Your task to perform on an android device: Go to wifi settings Image 0: 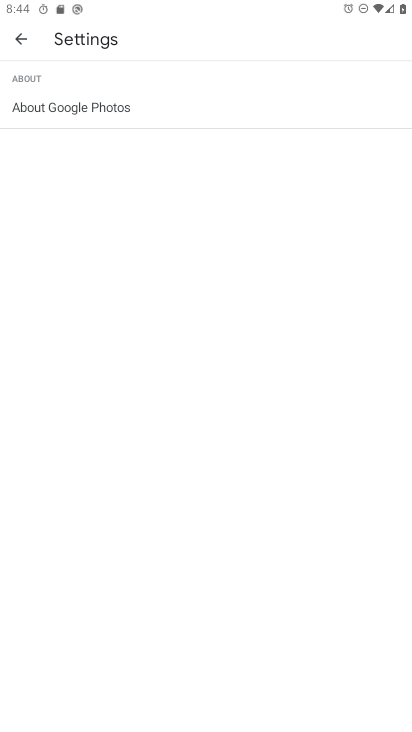
Step 0: press home button
Your task to perform on an android device: Go to wifi settings Image 1: 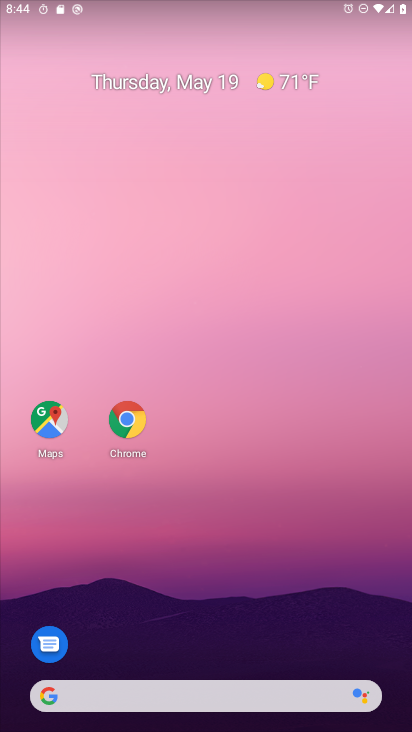
Step 1: drag from (197, 669) to (200, 344)
Your task to perform on an android device: Go to wifi settings Image 2: 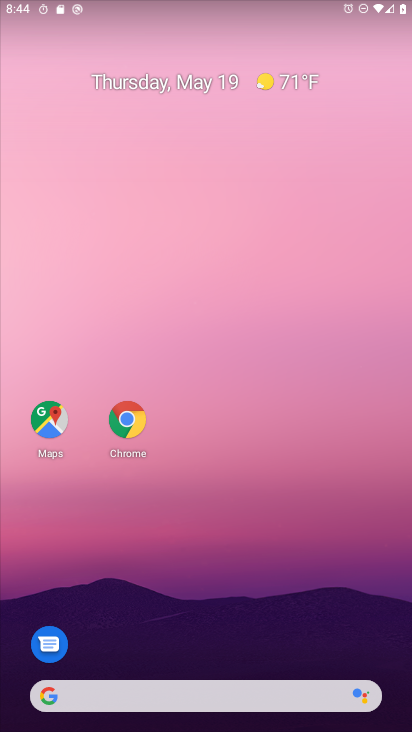
Step 2: drag from (206, 674) to (226, 137)
Your task to perform on an android device: Go to wifi settings Image 3: 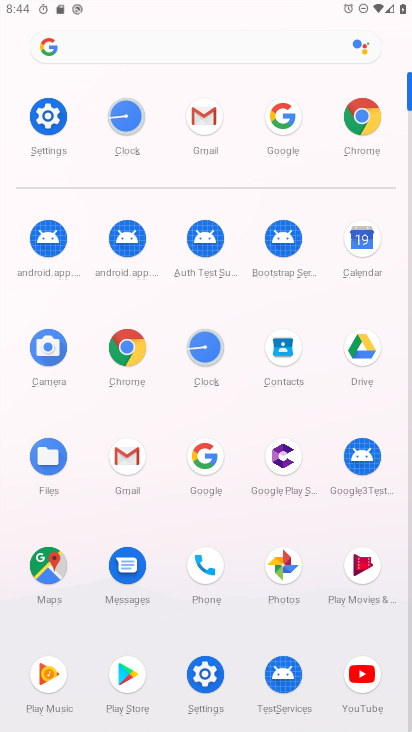
Step 3: click (46, 123)
Your task to perform on an android device: Go to wifi settings Image 4: 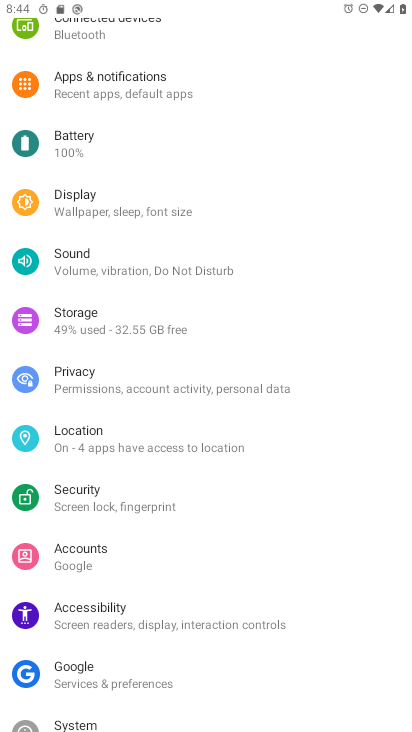
Step 4: drag from (96, 72) to (120, 499)
Your task to perform on an android device: Go to wifi settings Image 5: 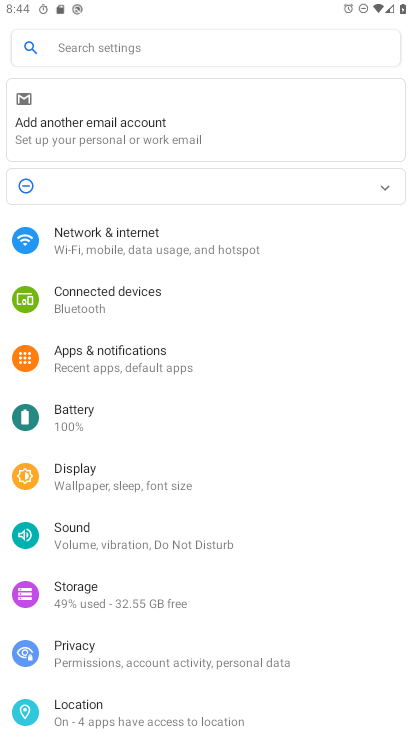
Step 5: click (112, 252)
Your task to perform on an android device: Go to wifi settings Image 6: 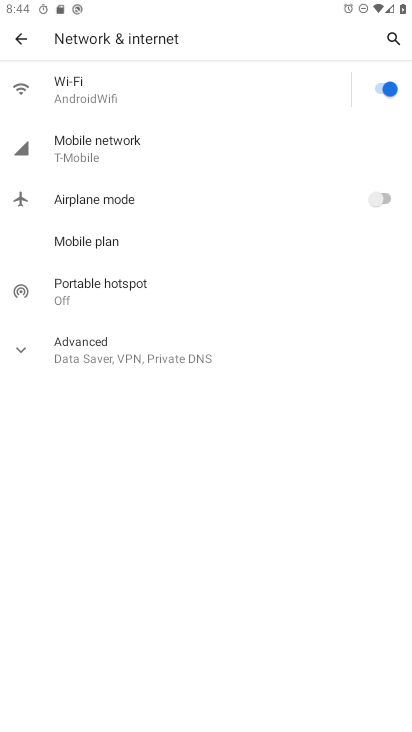
Step 6: click (114, 360)
Your task to perform on an android device: Go to wifi settings Image 7: 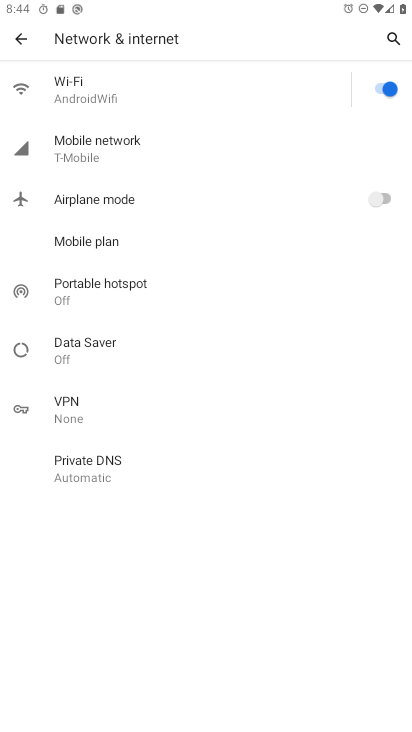
Step 7: click (101, 89)
Your task to perform on an android device: Go to wifi settings Image 8: 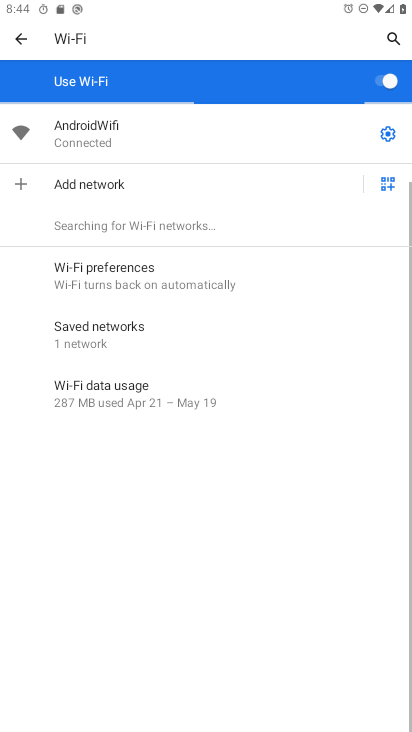
Step 8: click (384, 134)
Your task to perform on an android device: Go to wifi settings Image 9: 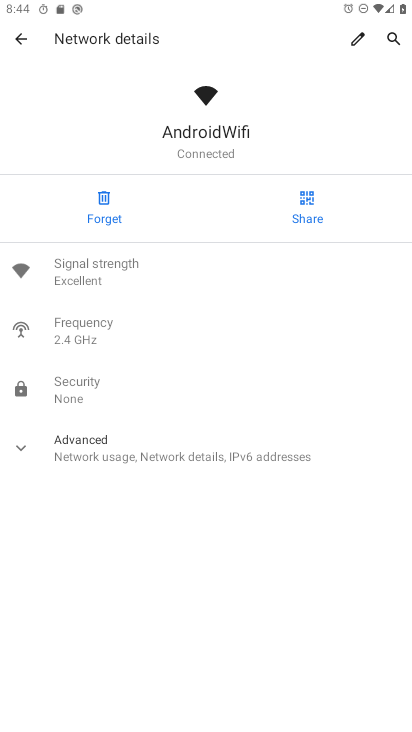
Step 9: click (75, 443)
Your task to perform on an android device: Go to wifi settings Image 10: 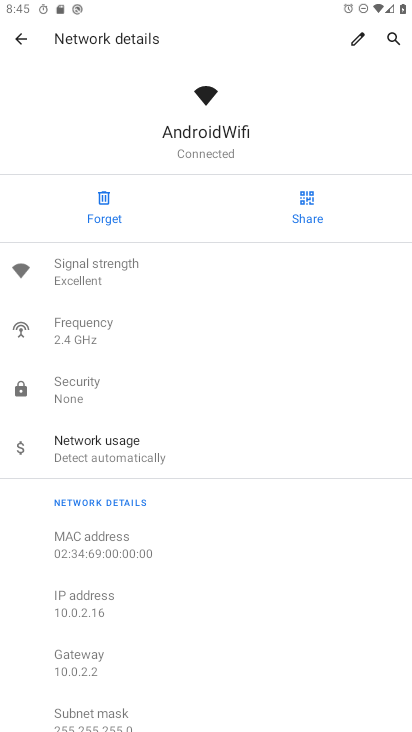
Step 10: task complete